Your task to perform on an android device: Do I have any events today? Image 0: 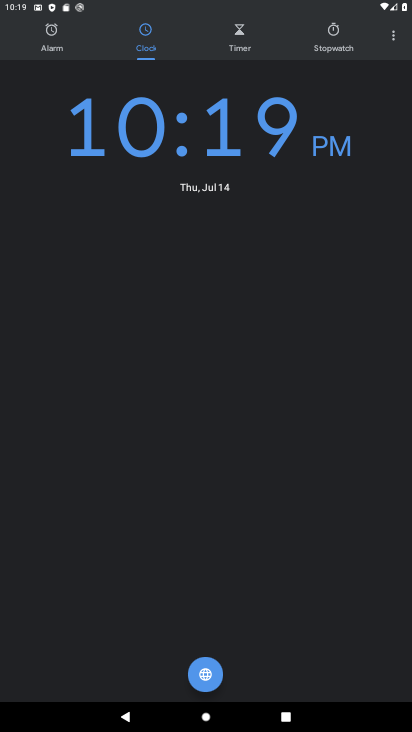
Step 0: press home button
Your task to perform on an android device: Do I have any events today? Image 1: 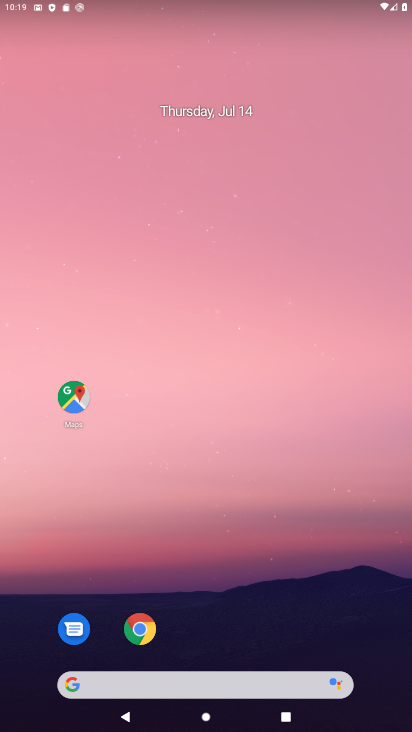
Step 1: drag from (276, 631) to (331, 196)
Your task to perform on an android device: Do I have any events today? Image 2: 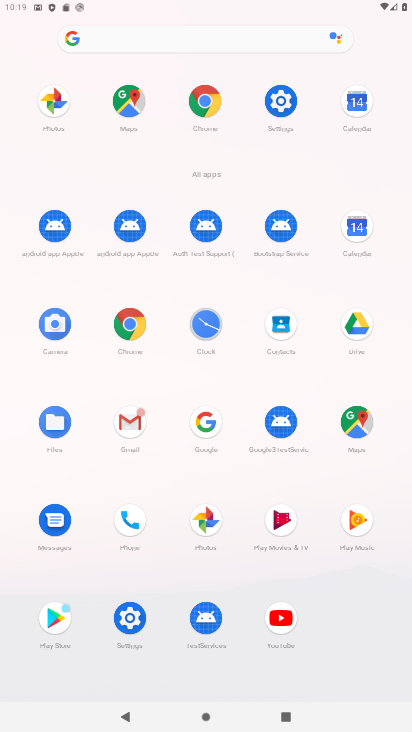
Step 2: click (355, 221)
Your task to perform on an android device: Do I have any events today? Image 3: 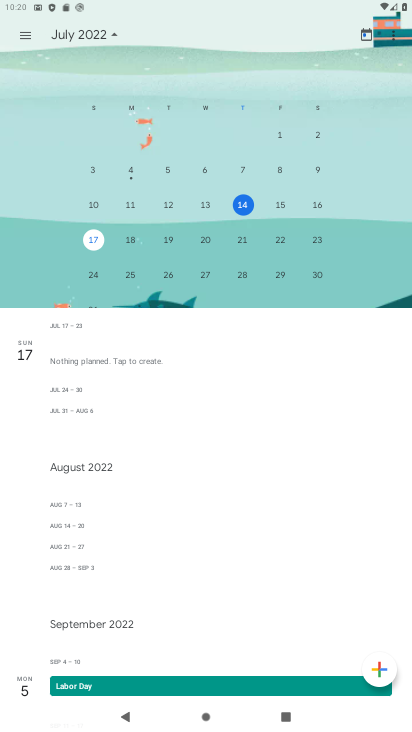
Step 3: click (242, 199)
Your task to perform on an android device: Do I have any events today? Image 4: 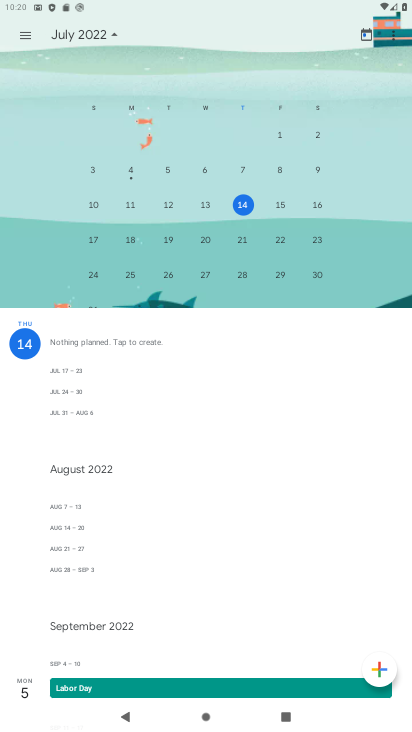
Step 4: task complete